Your task to perform on an android device: Open Chrome and go to settings Image 0: 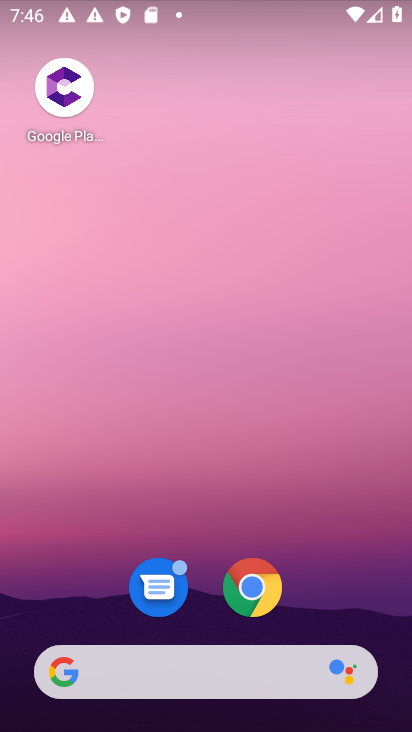
Step 0: click (251, 592)
Your task to perform on an android device: Open Chrome and go to settings Image 1: 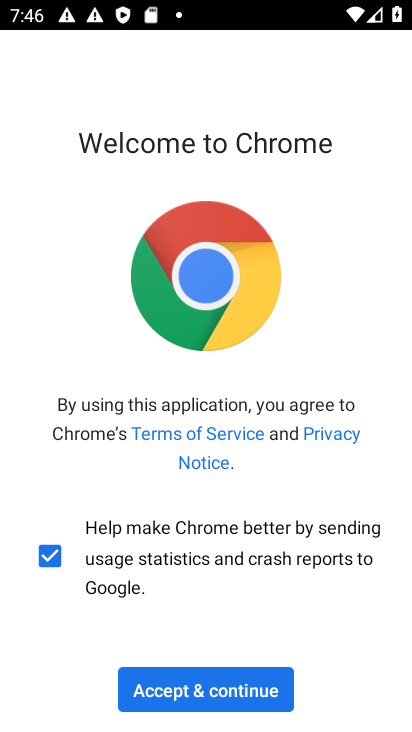
Step 1: click (221, 671)
Your task to perform on an android device: Open Chrome and go to settings Image 2: 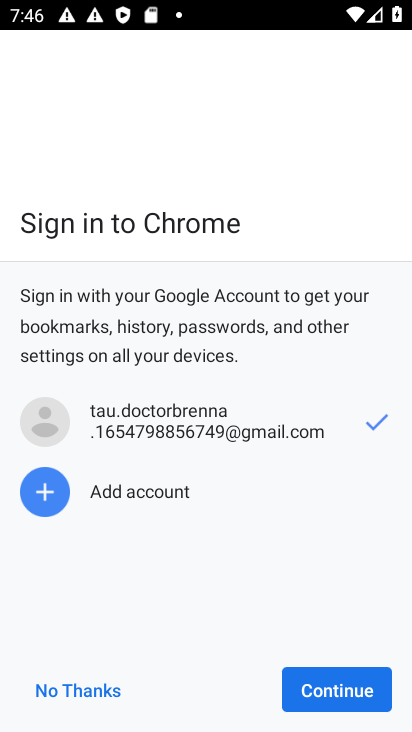
Step 2: click (313, 684)
Your task to perform on an android device: Open Chrome and go to settings Image 3: 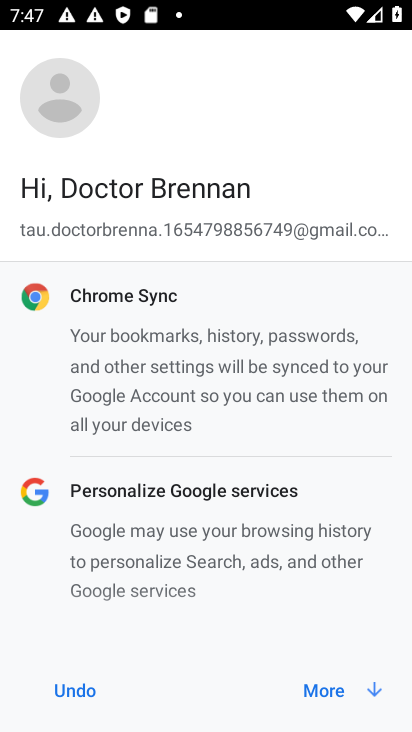
Step 3: click (321, 685)
Your task to perform on an android device: Open Chrome and go to settings Image 4: 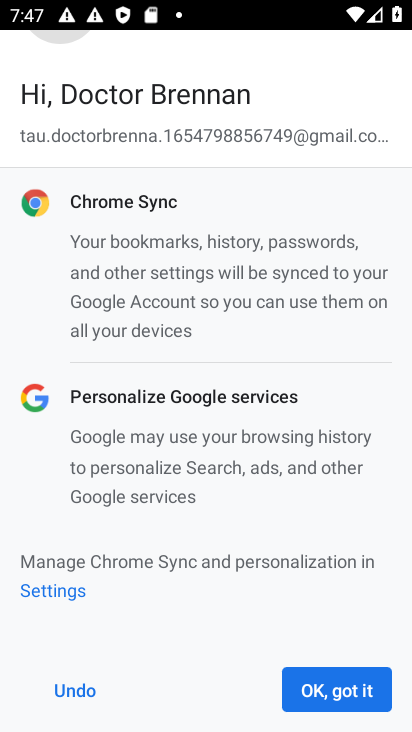
Step 4: click (321, 685)
Your task to perform on an android device: Open Chrome and go to settings Image 5: 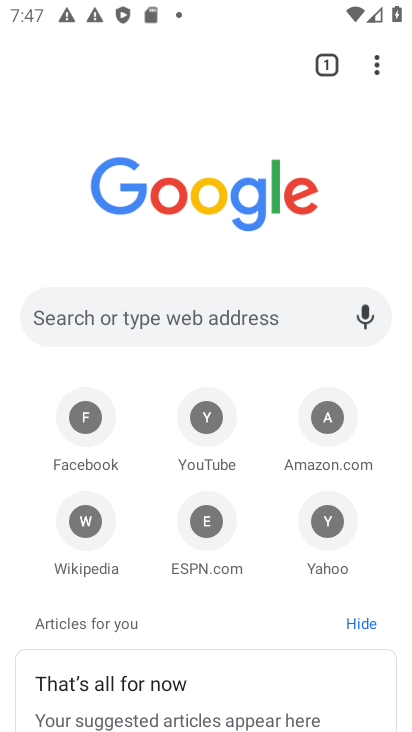
Step 5: click (375, 61)
Your task to perform on an android device: Open Chrome and go to settings Image 6: 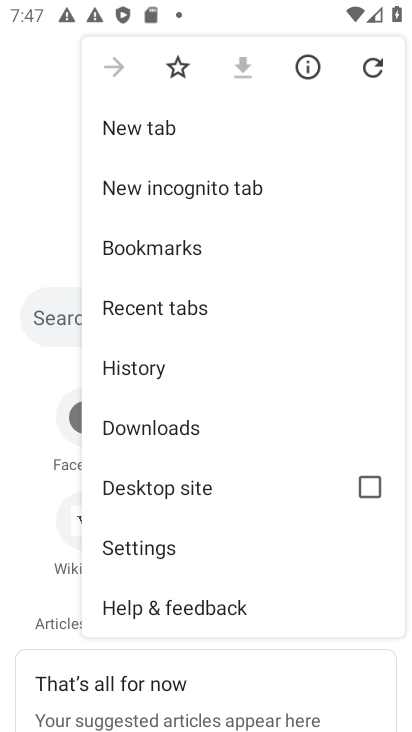
Step 6: click (127, 548)
Your task to perform on an android device: Open Chrome and go to settings Image 7: 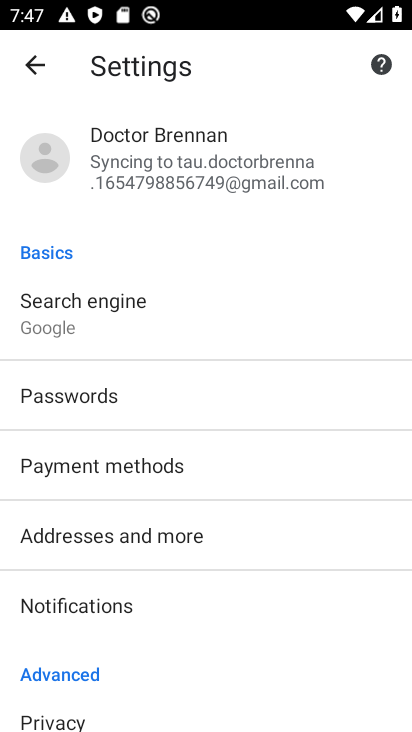
Step 7: task complete